Your task to perform on an android device: turn on the 12-hour format for clock Image 0: 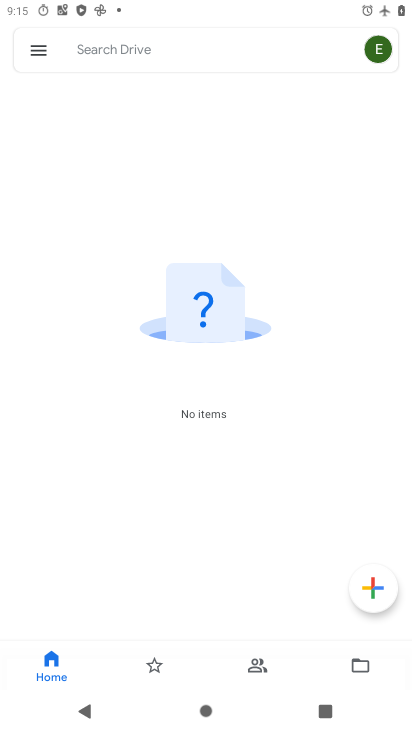
Step 0: press home button
Your task to perform on an android device: turn on the 12-hour format for clock Image 1: 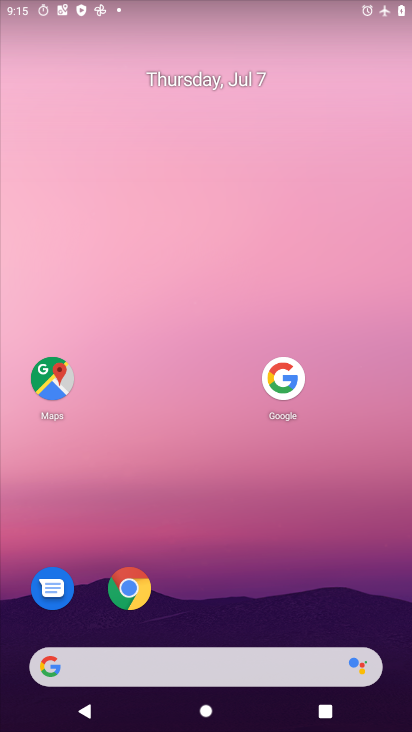
Step 1: drag from (219, 658) to (222, 82)
Your task to perform on an android device: turn on the 12-hour format for clock Image 2: 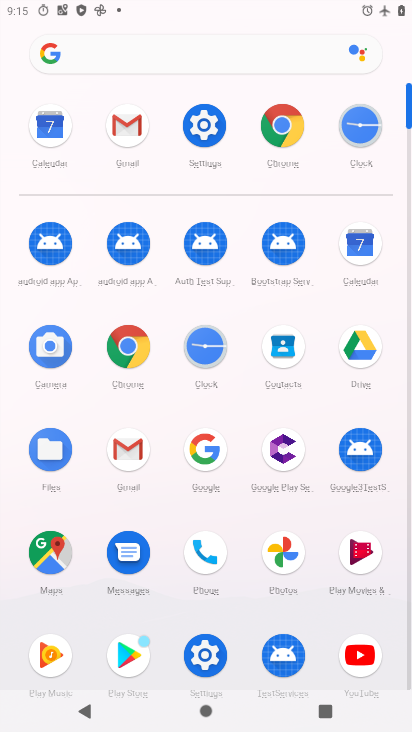
Step 2: click (200, 349)
Your task to perform on an android device: turn on the 12-hour format for clock Image 3: 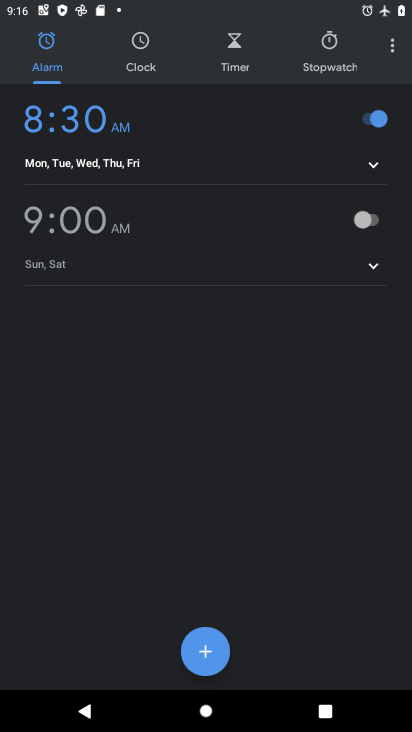
Step 3: click (394, 45)
Your task to perform on an android device: turn on the 12-hour format for clock Image 4: 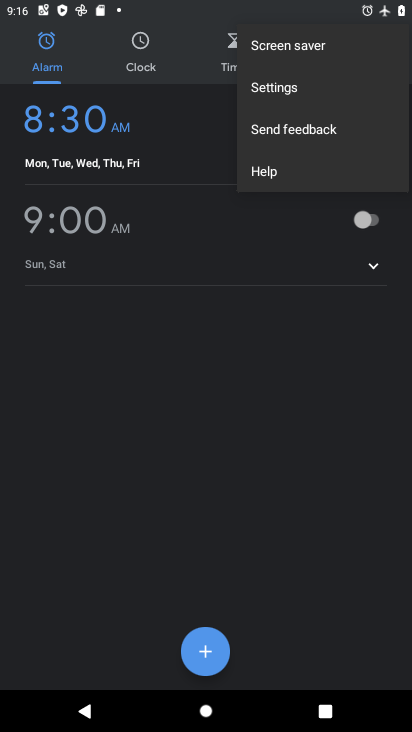
Step 4: click (269, 93)
Your task to perform on an android device: turn on the 12-hour format for clock Image 5: 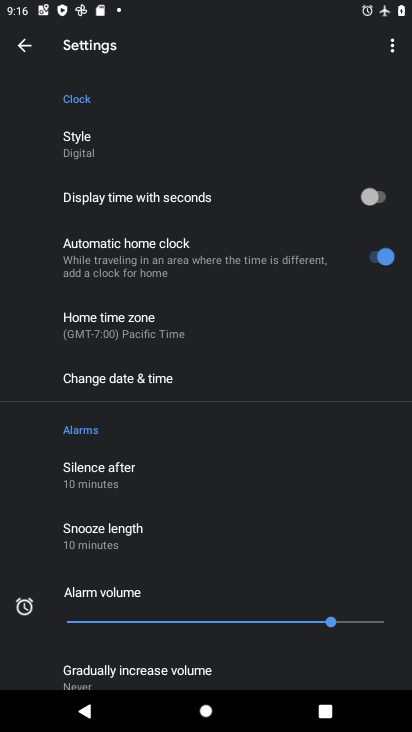
Step 5: click (140, 380)
Your task to perform on an android device: turn on the 12-hour format for clock Image 6: 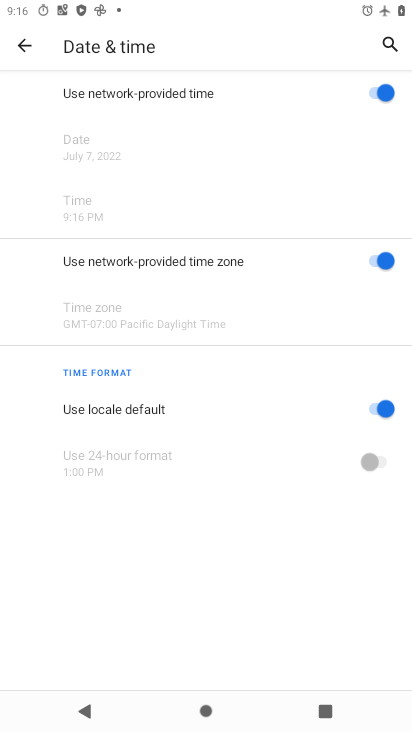
Step 6: task complete